Your task to perform on an android device: toggle location history Image 0: 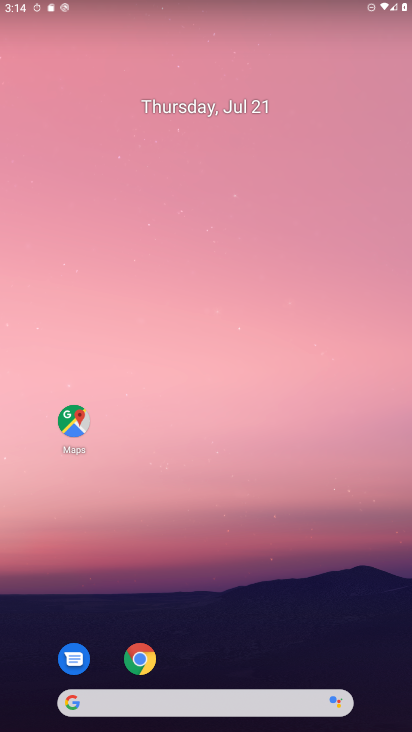
Step 0: press home button
Your task to perform on an android device: toggle location history Image 1: 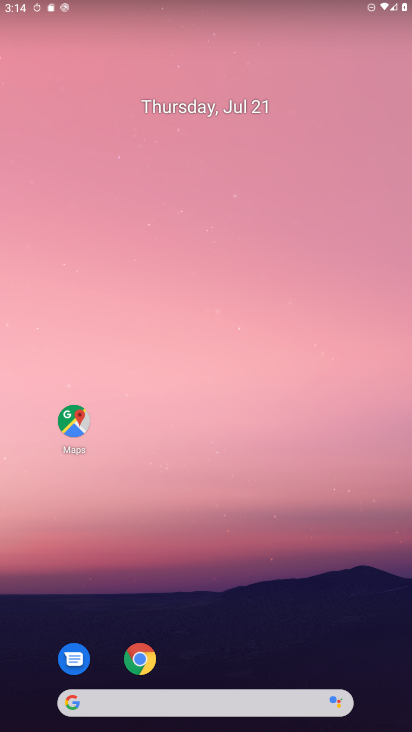
Step 1: drag from (35, 513) to (230, 92)
Your task to perform on an android device: toggle location history Image 2: 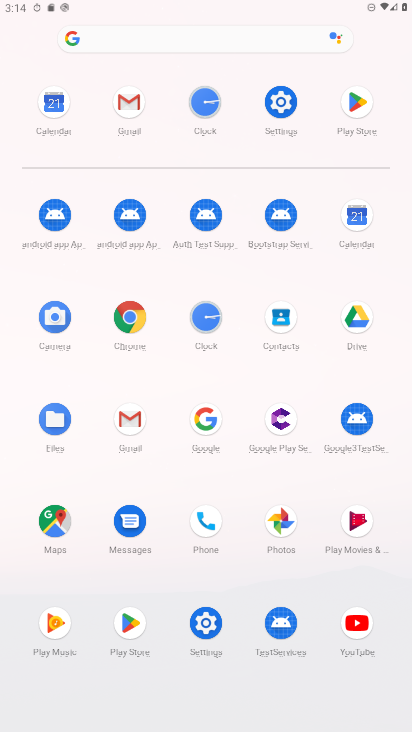
Step 2: click (294, 112)
Your task to perform on an android device: toggle location history Image 3: 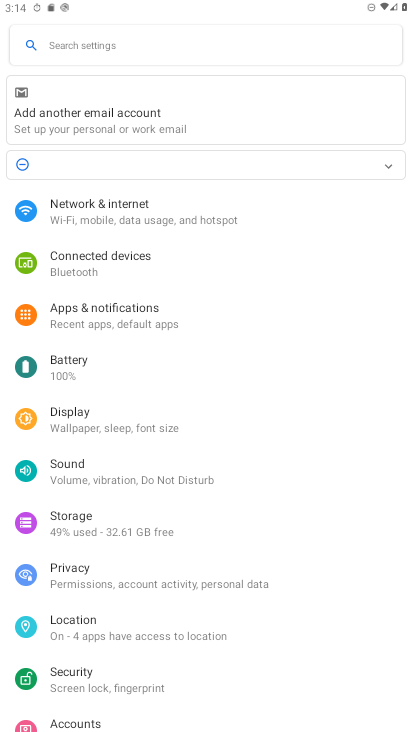
Step 3: click (100, 624)
Your task to perform on an android device: toggle location history Image 4: 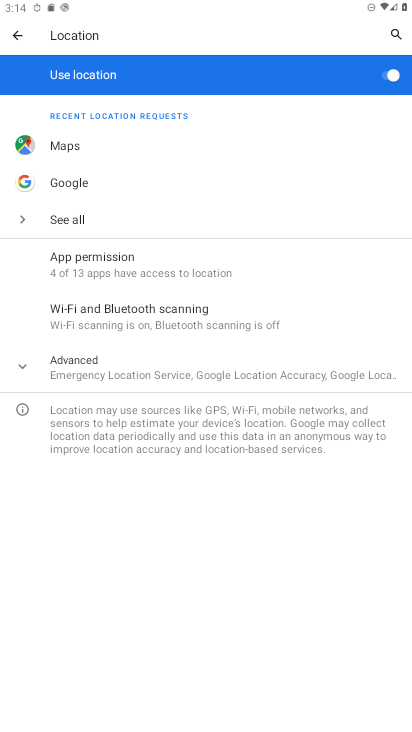
Step 4: click (106, 380)
Your task to perform on an android device: toggle location history Image 5: 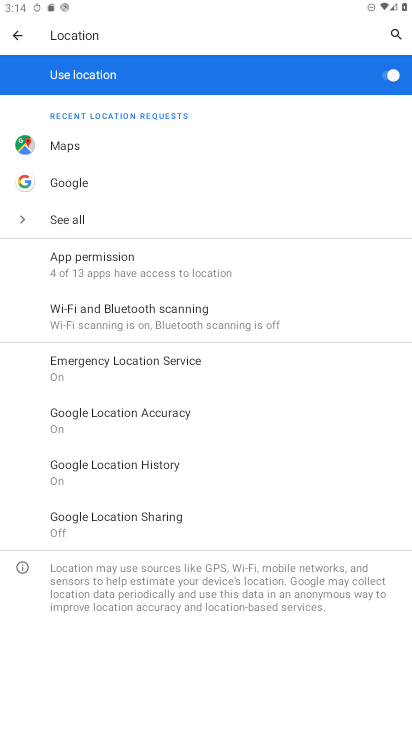
Step 5: click (88, 479)
Your task to perform on an android device: toggle location history Image 6: 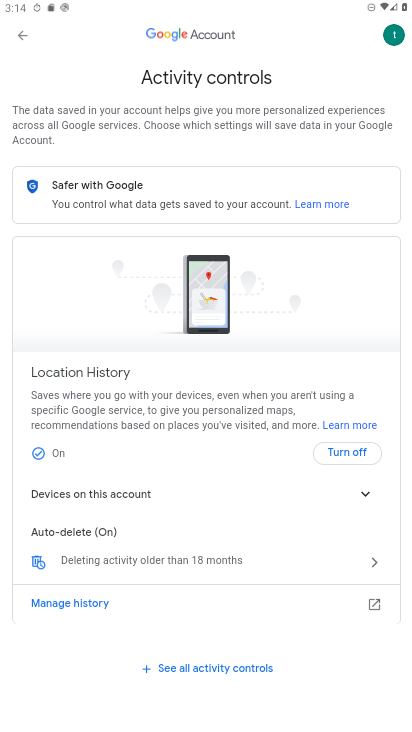
Step 6: click (351, 455)
Your task to perform on an android device: toggle location history Image 7: 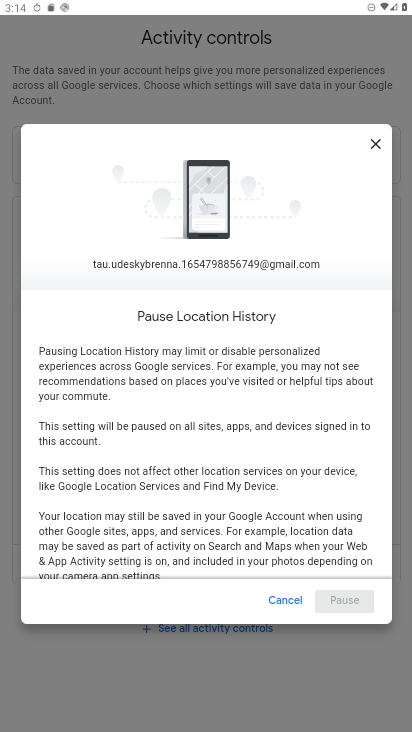
Step 7: drag from (153, 575) to (309, 93)
Your task to perform on an android device: toggle location history Image 8: 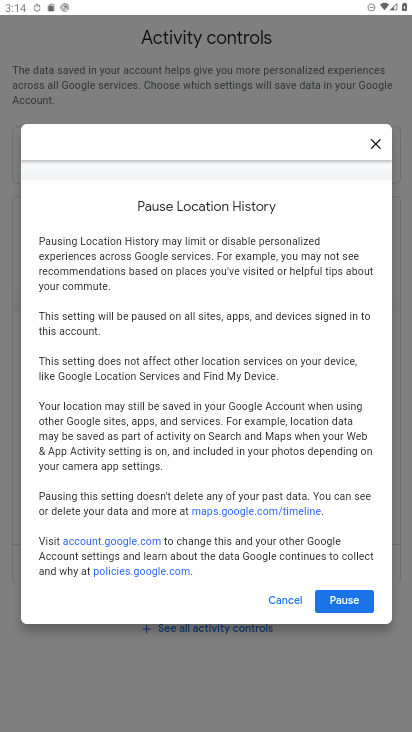
Step 8: click (361, 597)
Your task to perform on an android device: toggle location history Image 9: 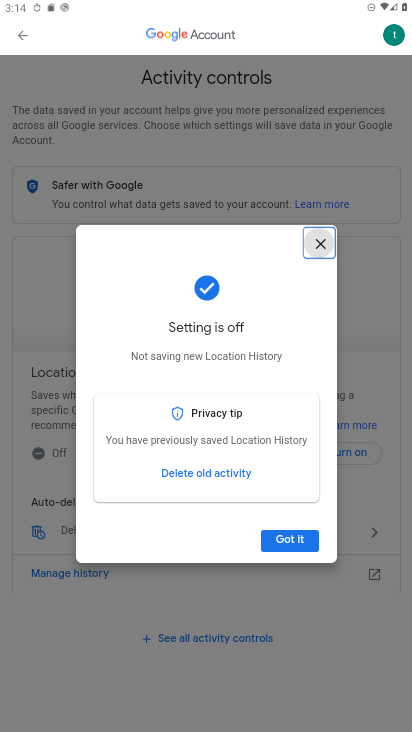
Step 9: click (280, 540)
Your task to perform on an android device: toggle location history Image 10: 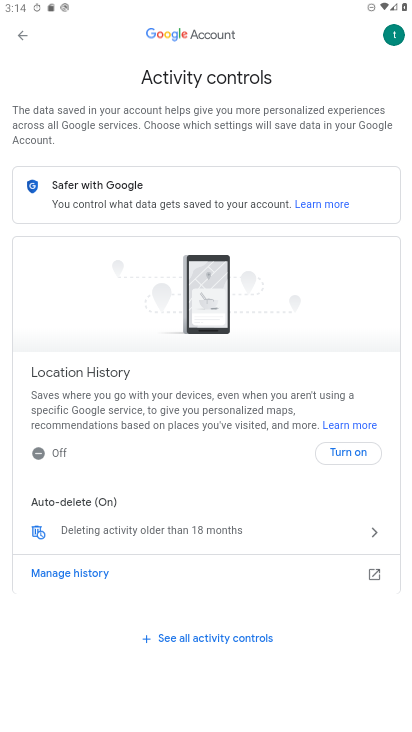
Step 10: task complete